Your task to perform on an android device: check the backup settings in the google photos Image 0: 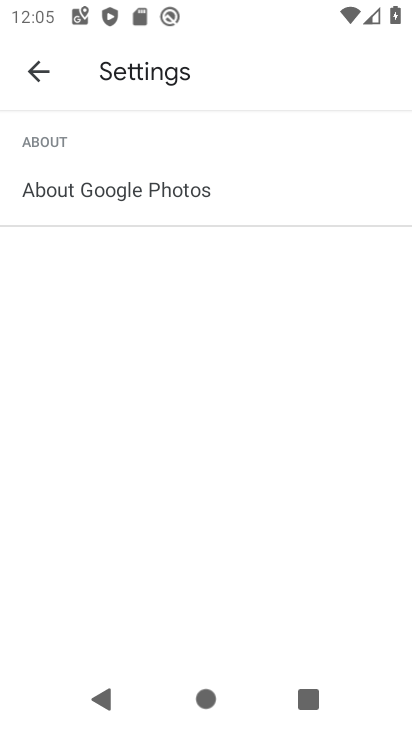
Step 0: press home button
Your task to perform on an android device: check the backup settings in the google photos Image 1: 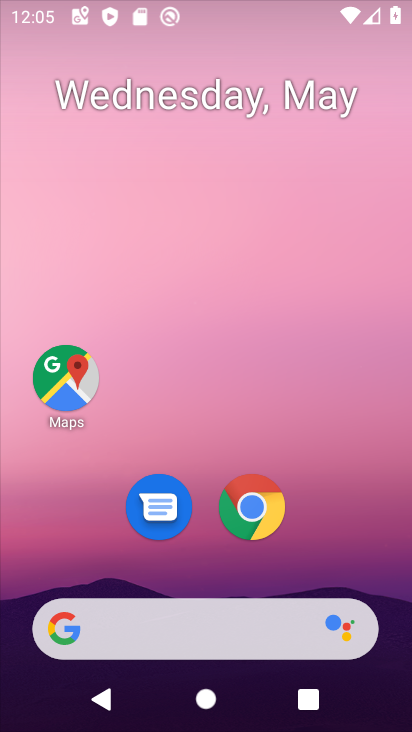
Step 1: drag from (259, 581) to (260, 172)
Your task to perform on an android device: check the backup settings in the google photos Image 2: 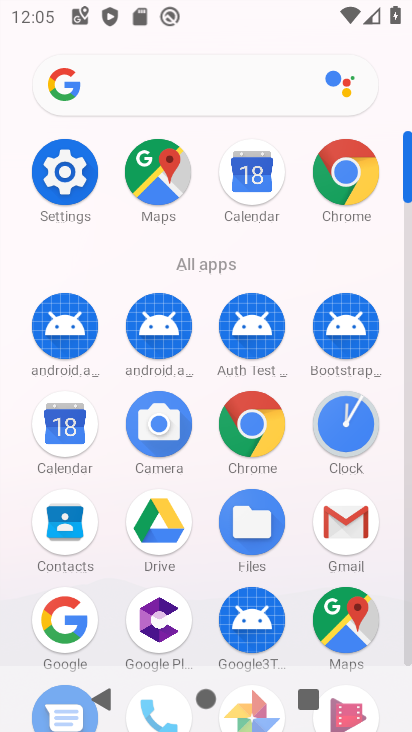
Step 2: drag from (212, 646) to (230, 383)
Your task to perform on an android device: check the backup settings in the google photos Image 3: 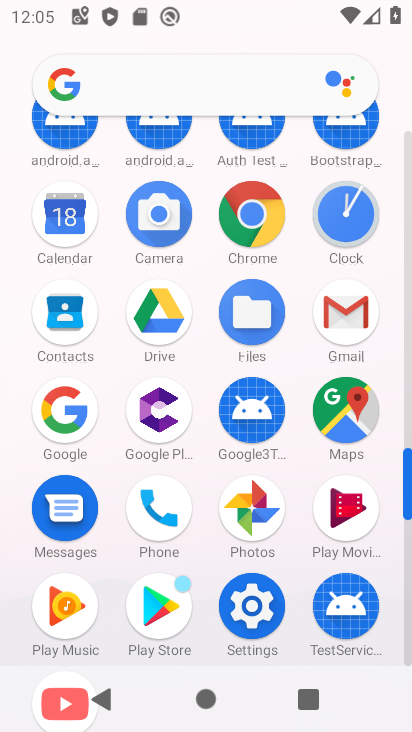
Step 3: click (239, 505)
Your task to perform on an android device: check the backup settings in the google photos Image 4: 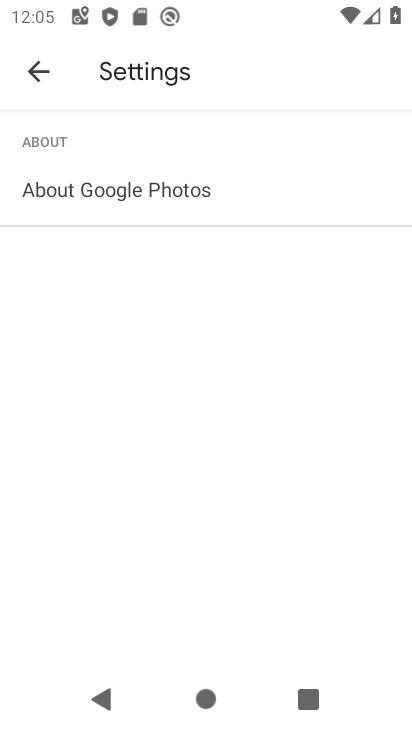
Step 4: click (33, 69)
Your task to perform on an android device: check the backup settings in the google photos Image 5: 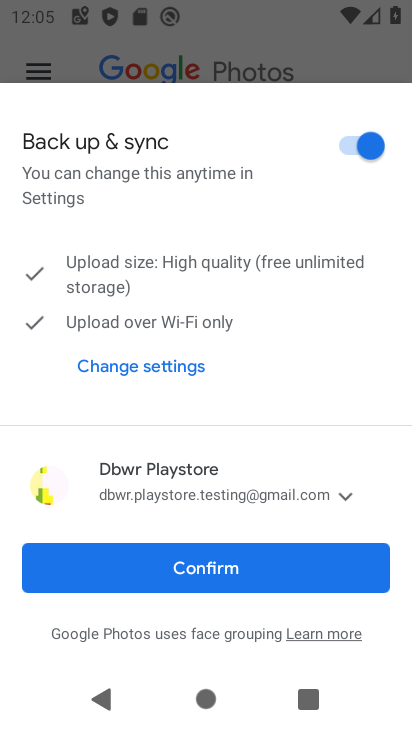
Step 5: click (262, 564)
Your task to perform on an android device: check the backup settings in the google photos Image 6: 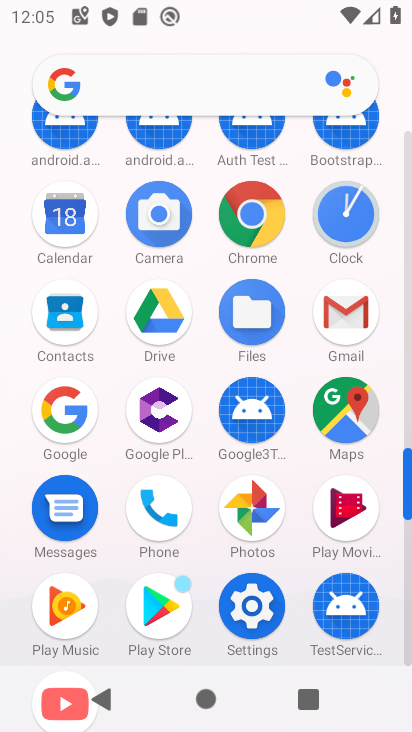
Step 6: click (255, 511)
Your task to perform on an android device: check the backup settings in the google photos Image 7: 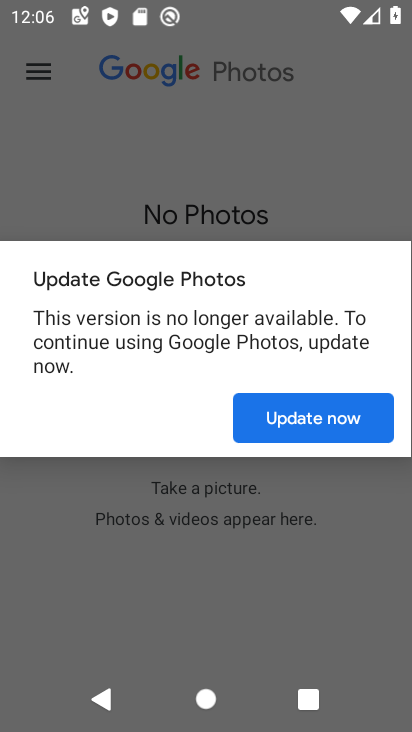
Step 7: click (261, 411)
Your task to perform on an android device: check the backup settings in the google photos Image 8: 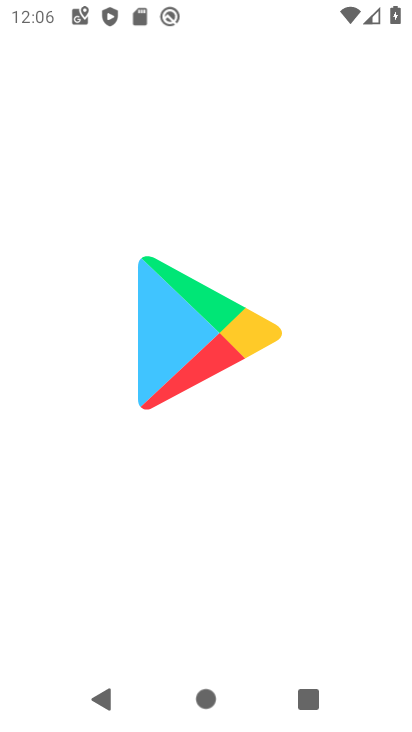
Step 8: press back button
Your task to perform on an android device: check the backup settings in the google photos Image 9: 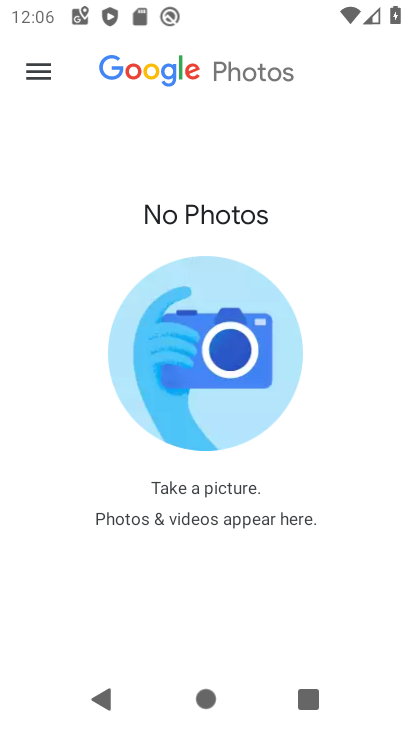
Step 9: click (40, 73)
Your task to perform on an android device: check the backup settings in the google photos Image 10: 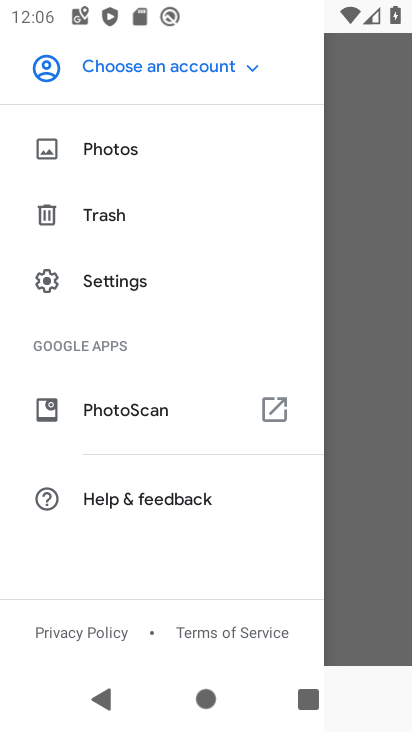
Step 10: click (127, 258)
Your task to perform on an android device: check the backup settings in the google photos Image 11: 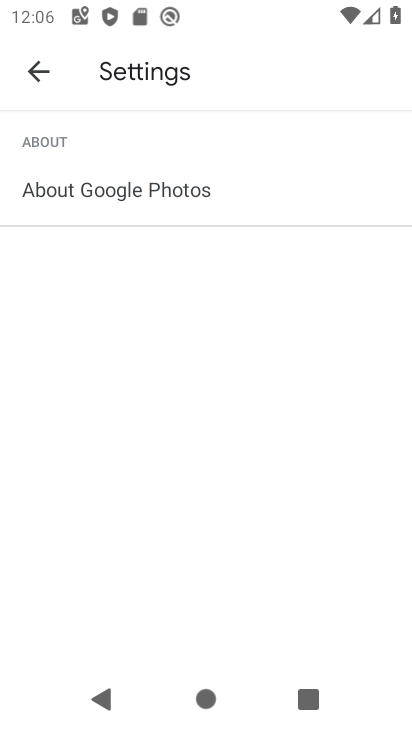
Step 11: click (44, 60)
Your task to perform on an android device: check the backup settings in the google photos Image 12: 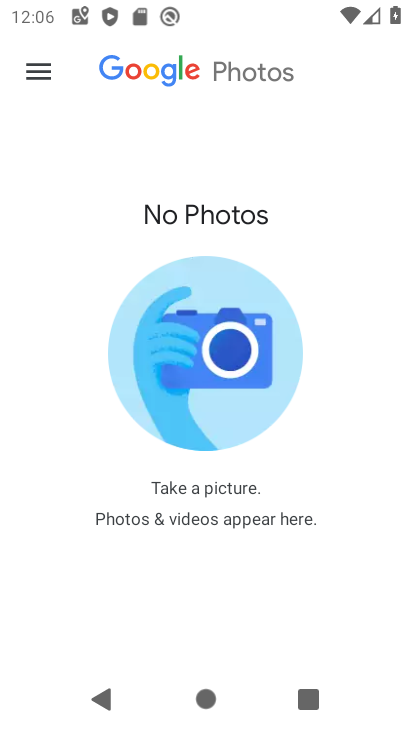
Step 12: click (23, 53)
Your task to perform on an android device: check the backup settings in the google photos Image 13: 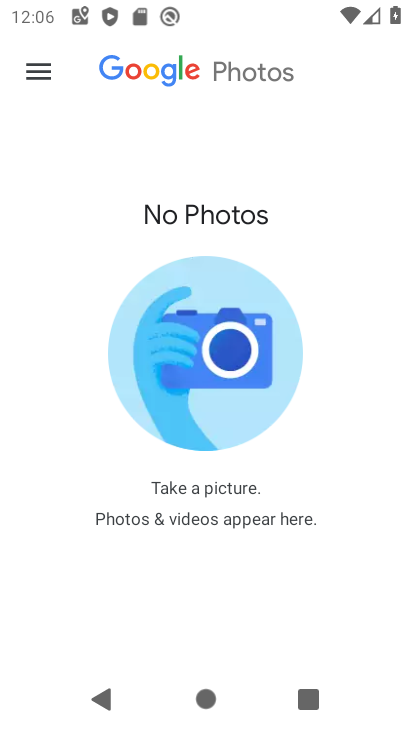
Step 13: click (22, 67)
Your task to perform on an android device: check the backup settings in the google photos Image 14: 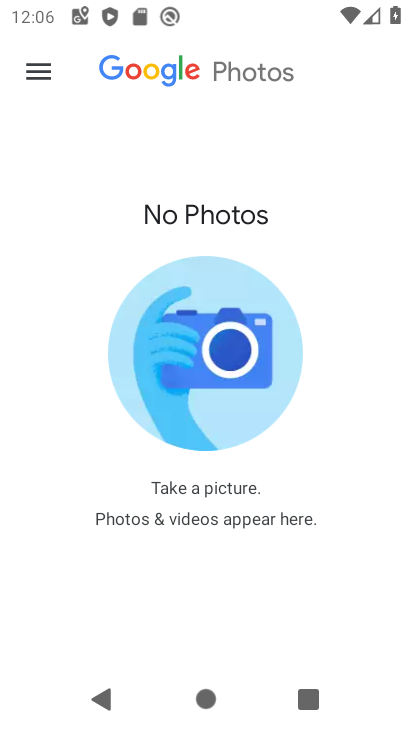
Step 14: click (35, 51)
Your task to perform on an android device: check the backup settings in the google photos Image 15: 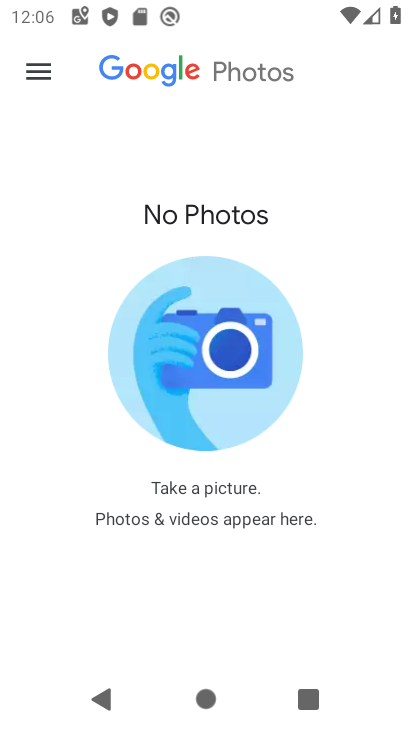
Step 15: click (34, 52)
Your task to perform on an android device: check the backup settings in the google photos Image 16: 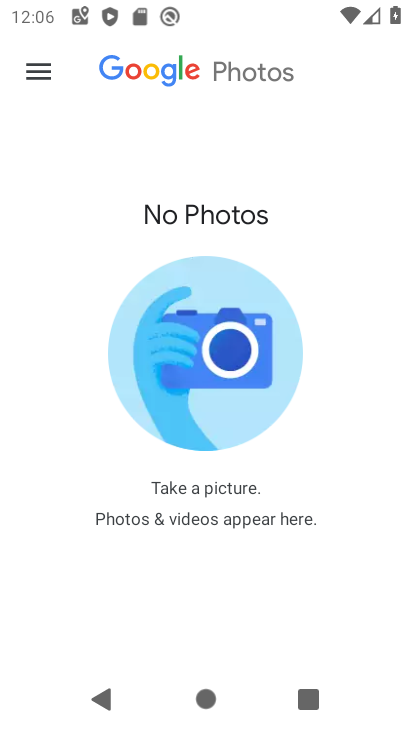
Step 16: task complete